Your task to perform on an android device: open app "Roku - Official Remote Control" (install if not already installed), go to login, and select forgot password Image 0: 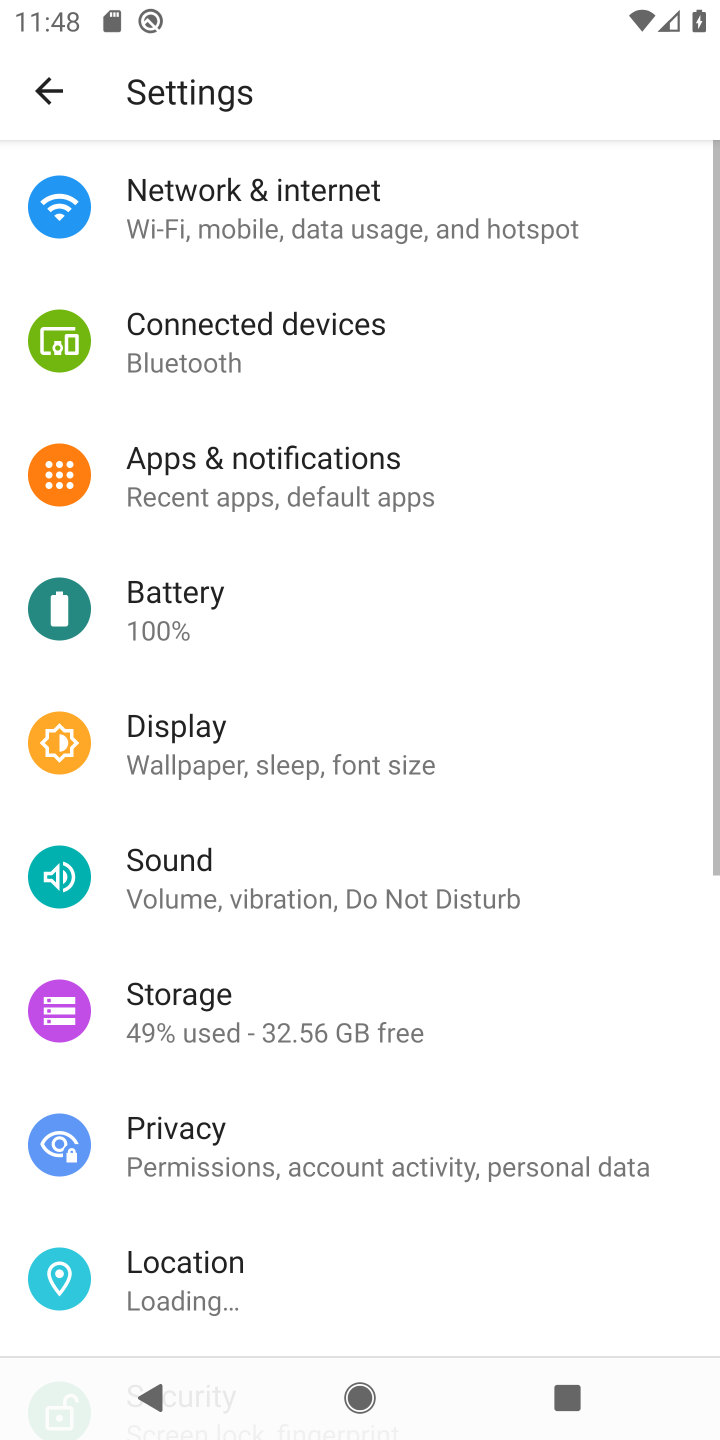
Step 0: press home button
Your task to perform on an android device: open app "Roku - Official Remote Control" (install if not already installed), go to login, and select forgot password Image 1: 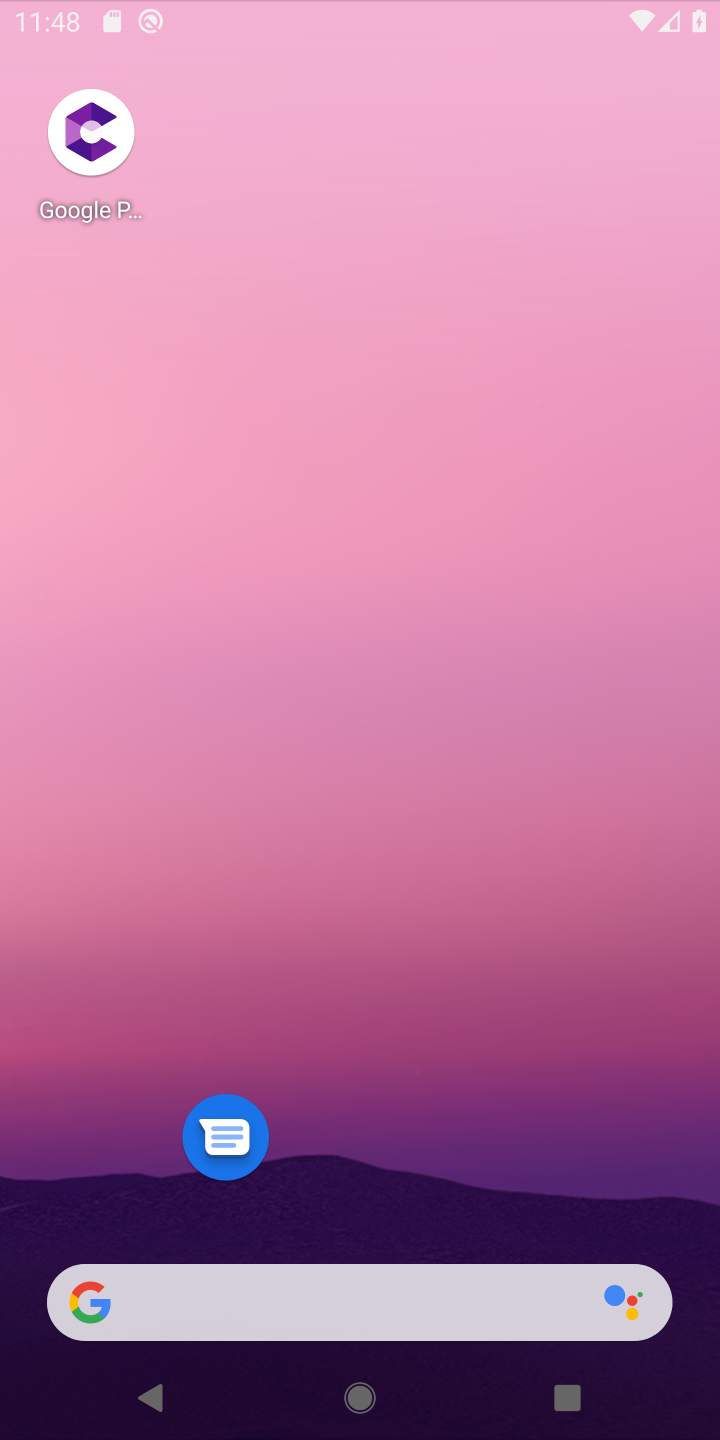
Step 1: press home button
Your task to perform on an android device: open app "Roku - Official Remote Control" (install if not already installed), go to login, and select forgot password Image 2: 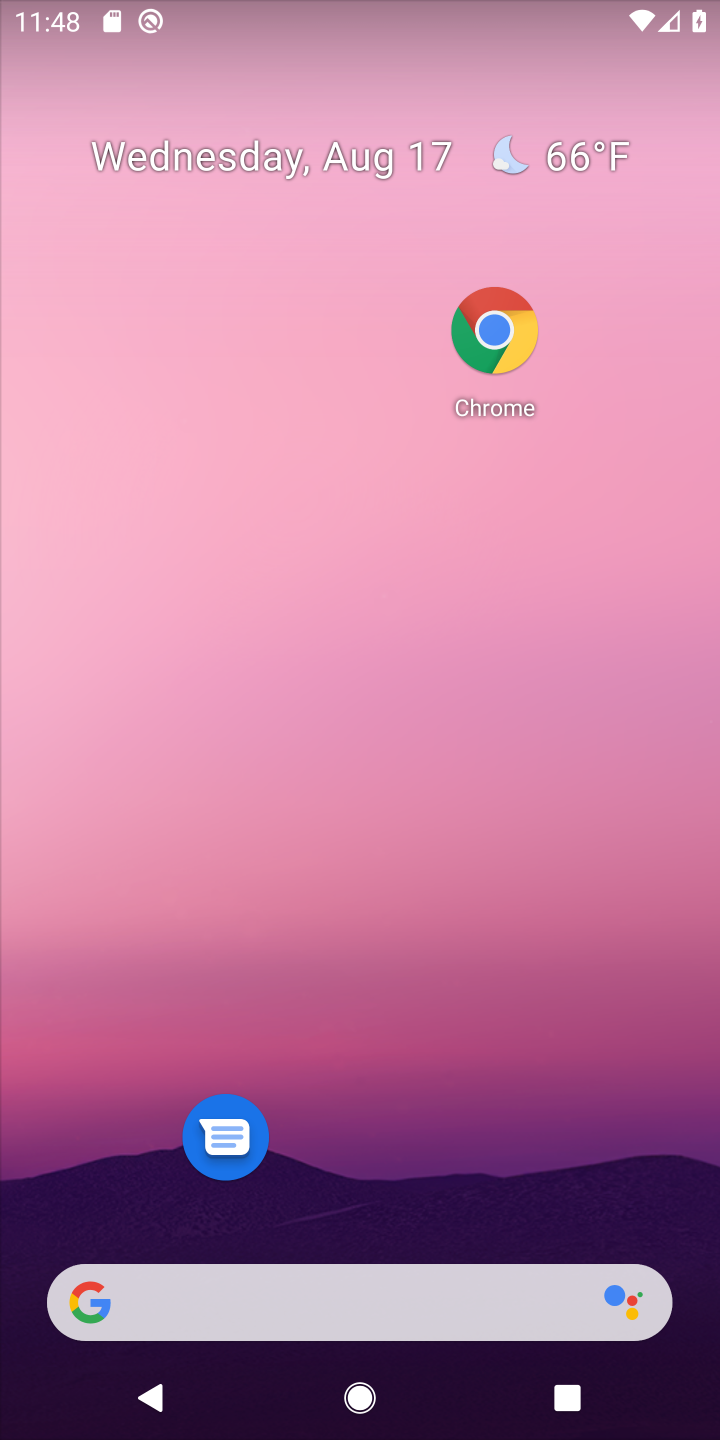
Step 2: drag from (335, 1225) to (386, 338)
Your task to perform on an android device: open app "Roku - Official Remote Control" (install if not already installed), go to login, and select forgot password Image 3: 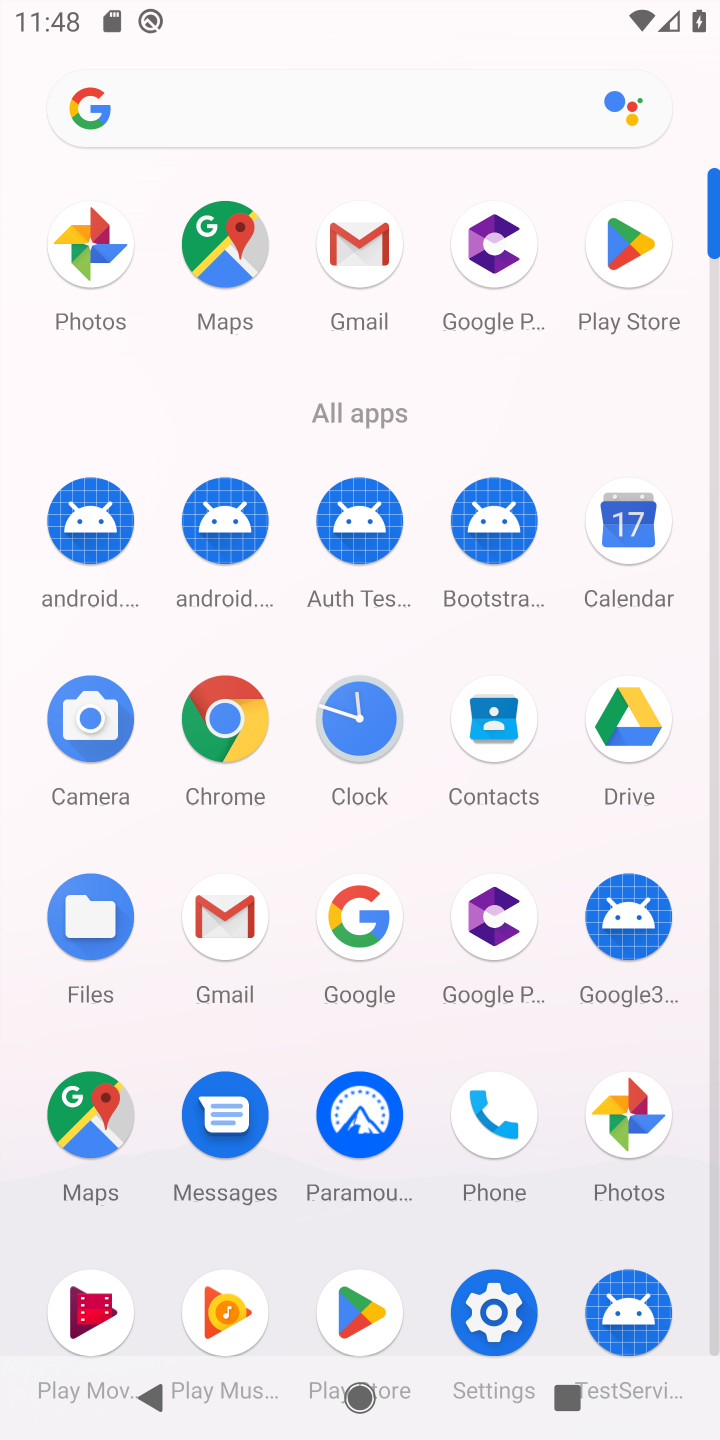
Step 3: click (611, 219)
Your task to perform on an android device: open app "Roku - Official Remote Control" (install if not already installed), go to login, and select forgot password Image 4: 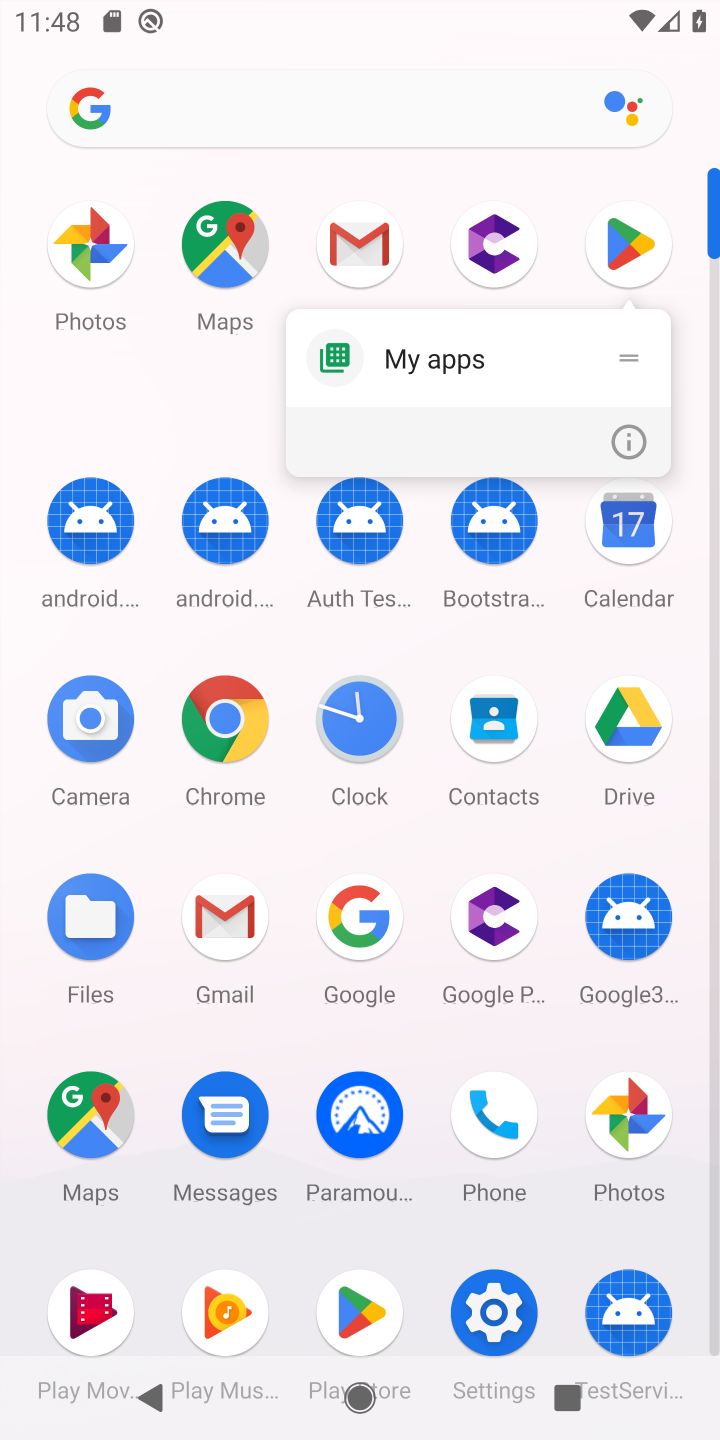
Step 4: click (611, 226)
Your task to perform on an android device: open app "Roku - Official Remote Control" (install if not already installed), go to login, and select forgot password Image 5: 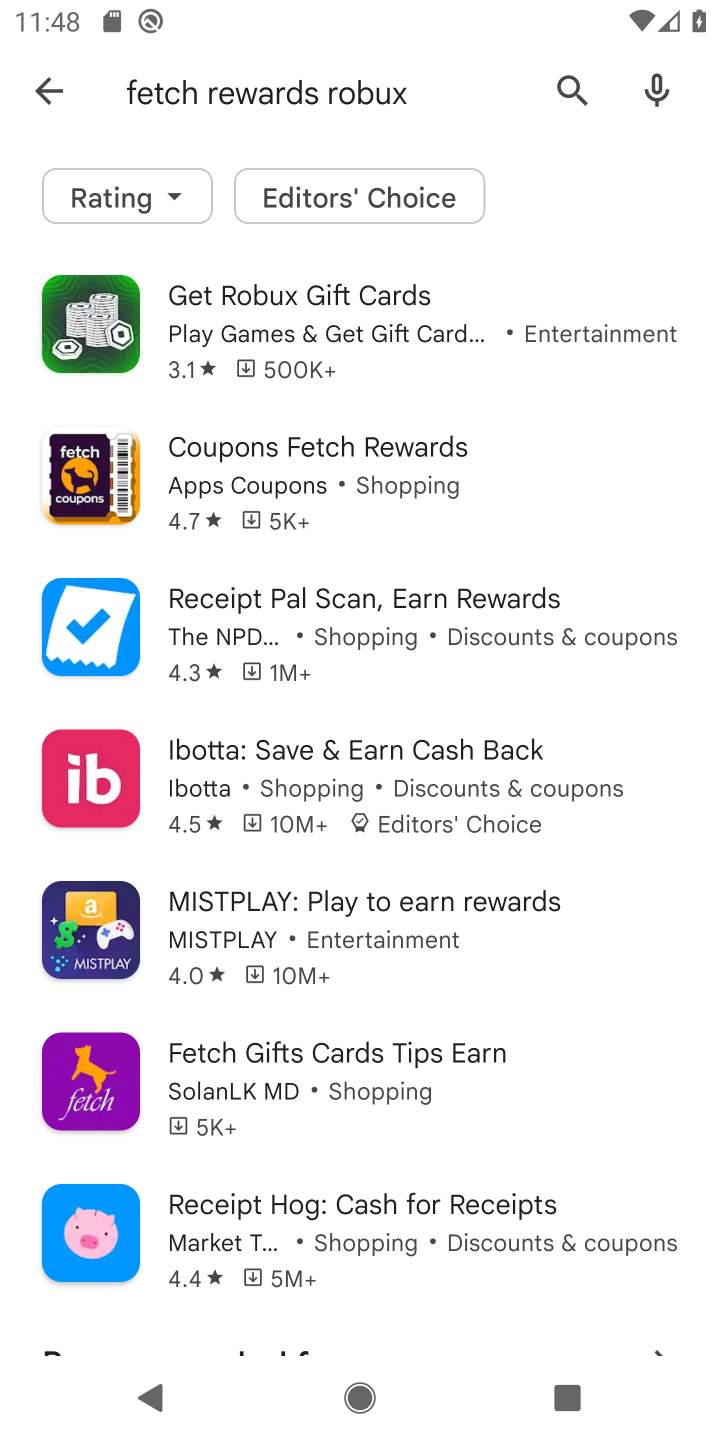
Step 5: click (634, 259)
Your task to perform on an android device: open app "Roku - Official Remote Control" (install if not already installed), go to login, and select forgot password Image 6: 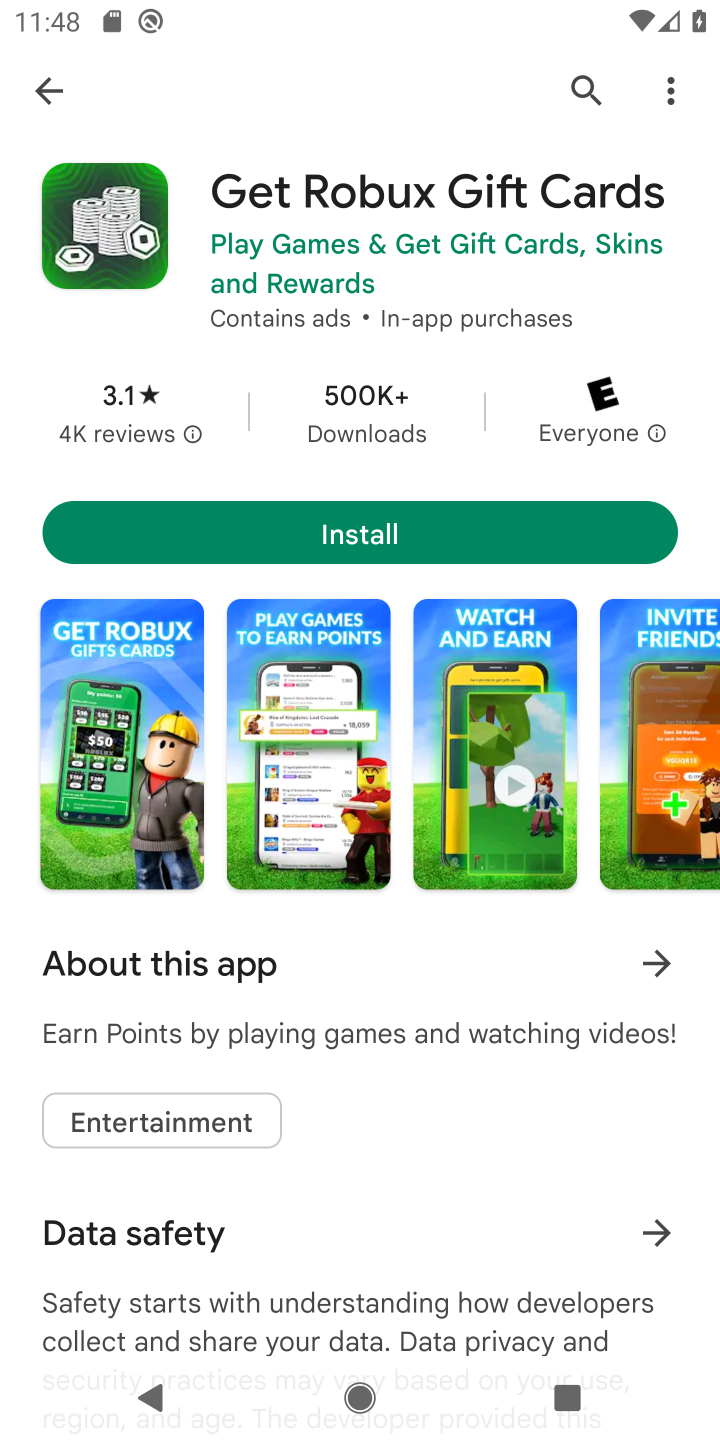
Step 6: click (48, 78)
Your task to perform on an android device: open app "Roku - Official Remote Control" (install if not already installed), go to login, and select forgot password Image 7: 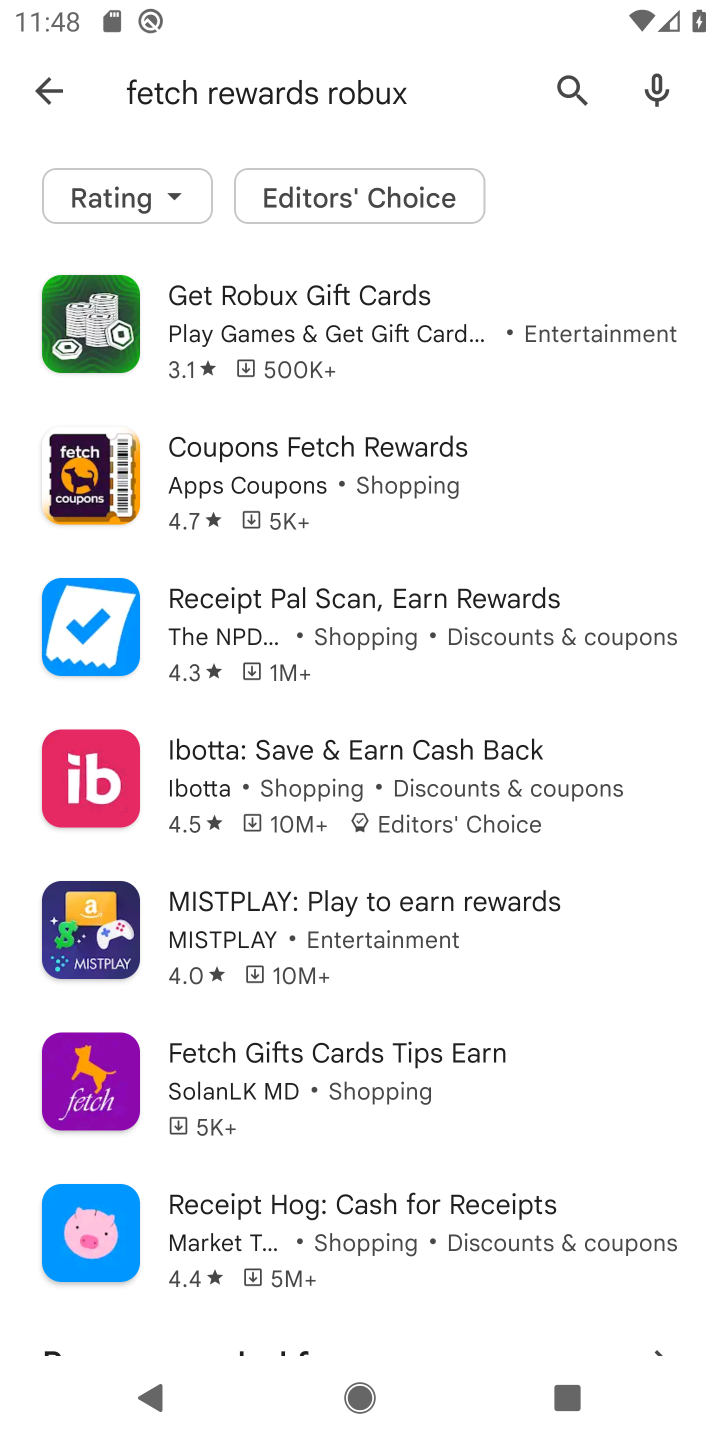
Step 7: click (48, 78)
Your task to perform on an android device: open app "Roku - Official Remote Control" (install if not already installed), go to login, and select forgot password Image 8: 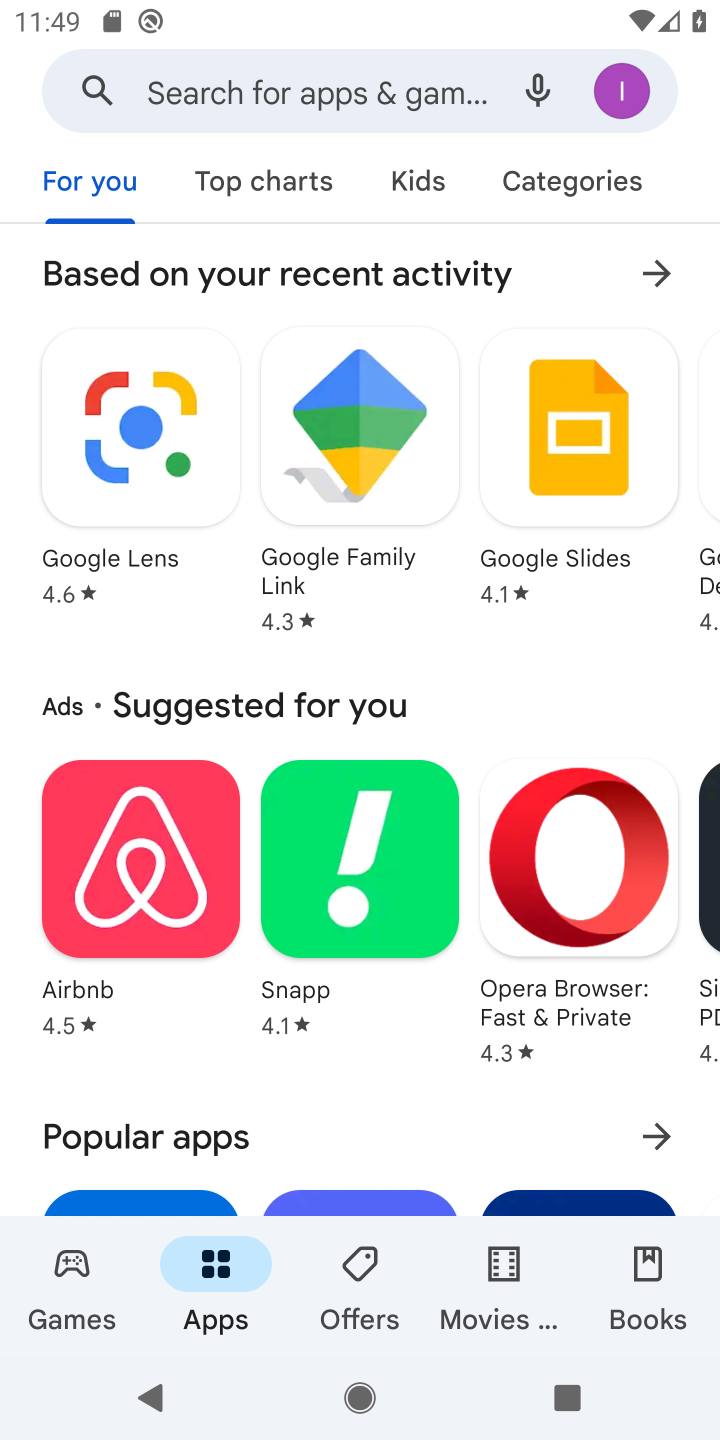
Step 8: click (346, 64)
Your task to perform on an android device: open app "Roku - Official Remote Control" (install if not already installed), go to login, and select forgot password Image 9: 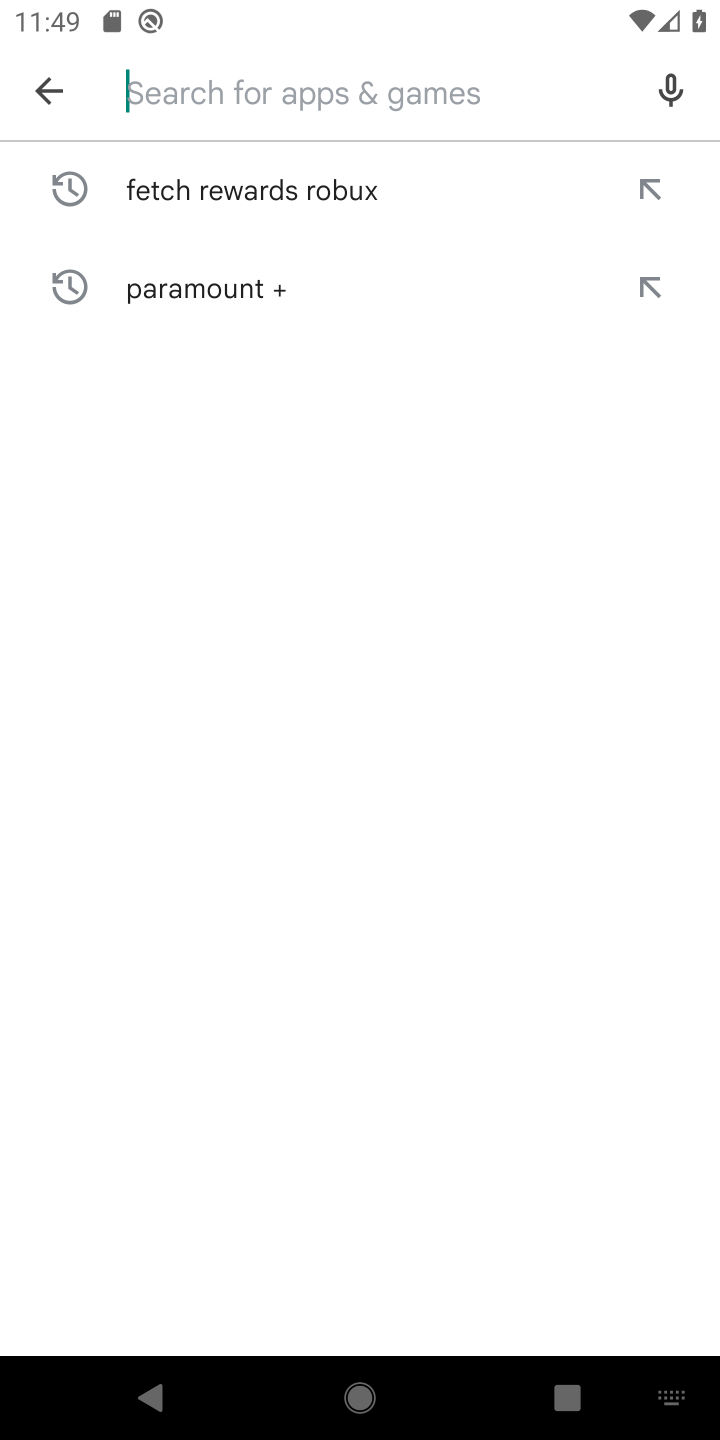
Step 9: type "roku "
Your task to perform on an android device: open app "Roku - Official Remote Control" (install if not already installed), go to login, and select forgot password Image 10: 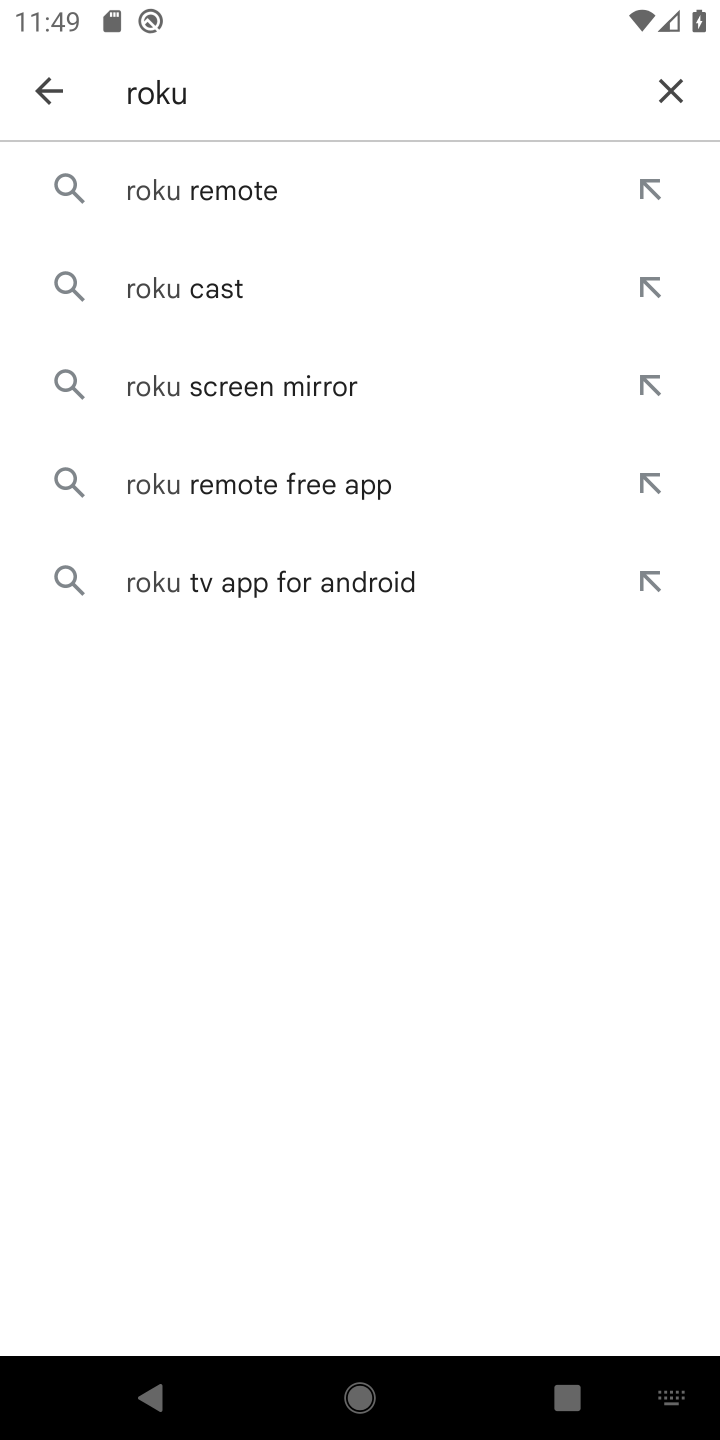
Step 10: click (277, 183)
Your task to perform on an android device: open app "Roku - Official Remote Control" (install if not already installed), go to login, and select forgot password Image 11: 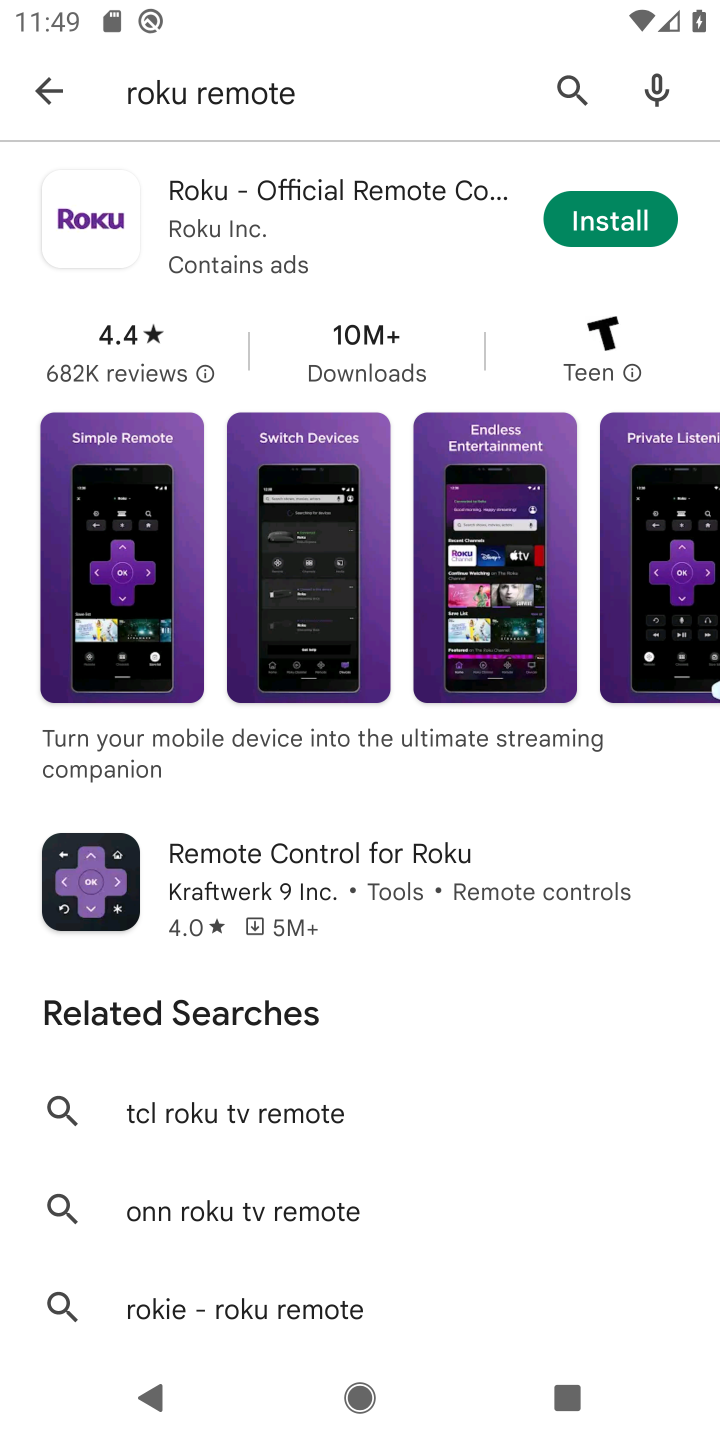
Step 11: click (614, 208)
Your task to perform on an android device: open app "Roku - Official Remote Control" (install if not already installed), go to login, and select forgot password Image 12: 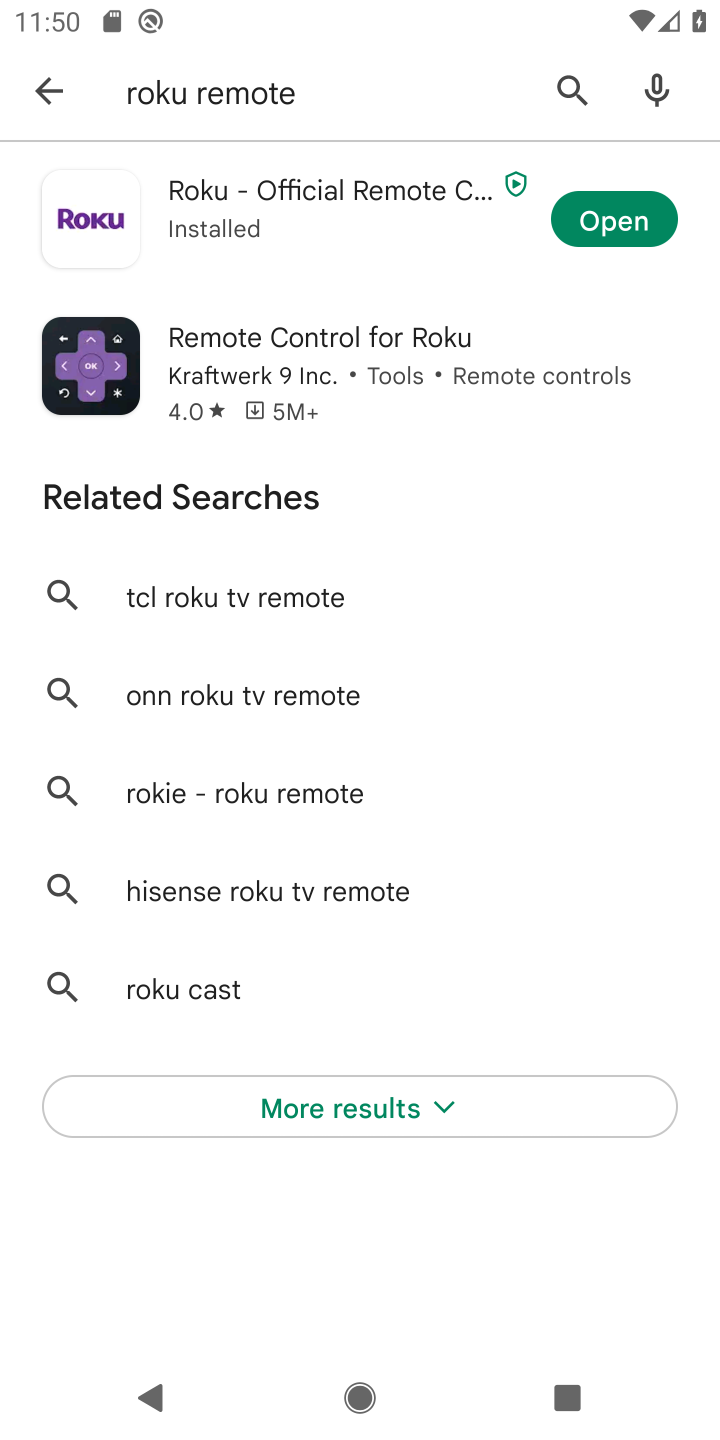
Step 12: click (563, 204)
Your task to perform on an android device: open app "Roku - Official Remote Control" (install if not already installed), go to login, and select forgot password Image 13: 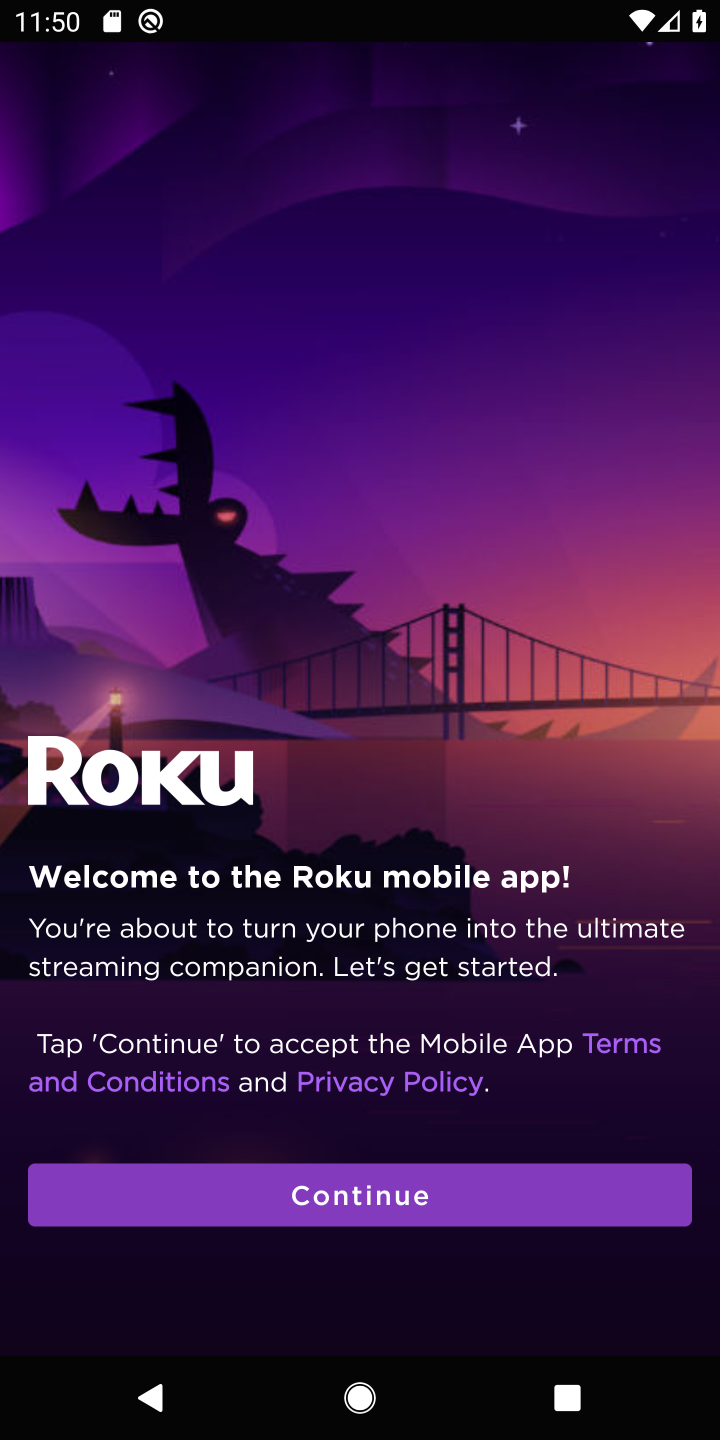
Step 13: task complete